Your task to perform on an android device: Go to eBay Image 0: 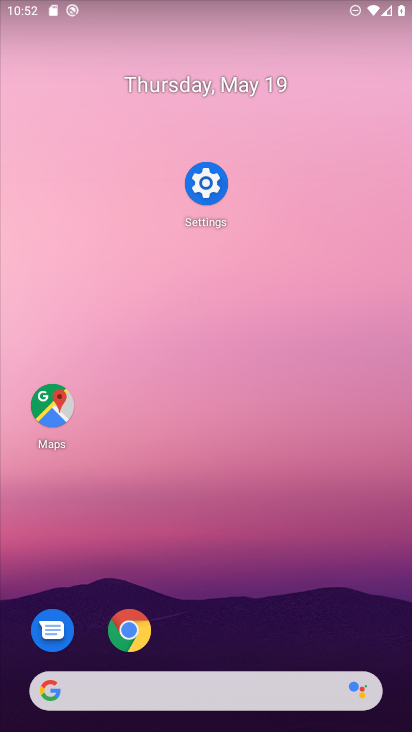
Step 0: drag from (265, 569) to (188, 13)
Your task to perform on an android device: Go to eBay Image 1: 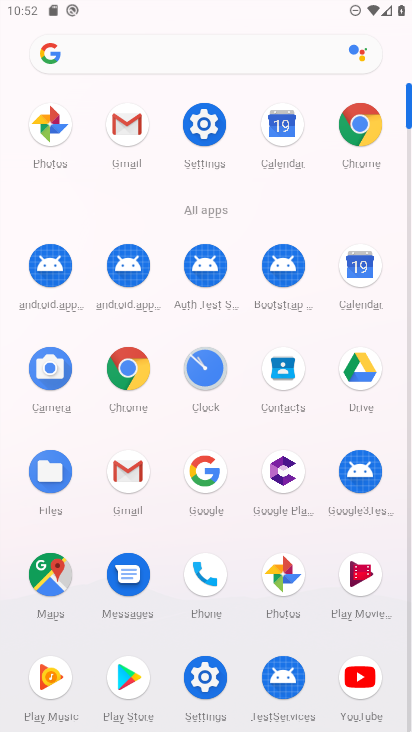
Step 1: click (350, 219)
Your task to perform on an android device: Go to eBay Image 2: 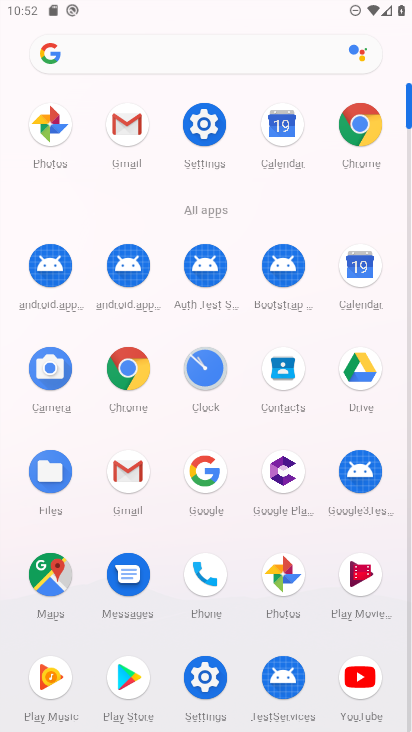
Step 2: click (362, 125)
Your task to perform on an android device: Go to eBay Image 3: 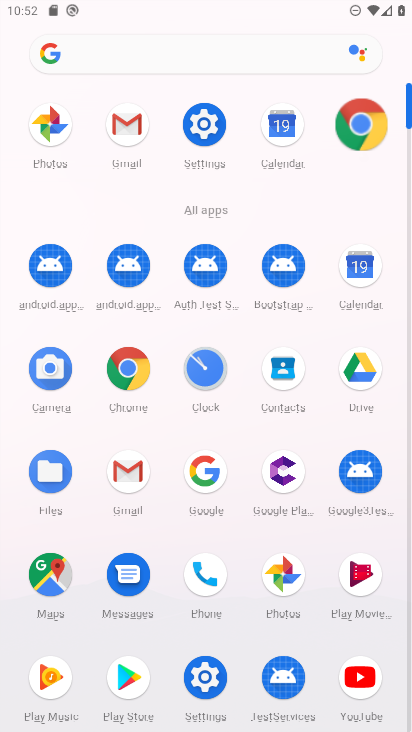
Step 3: click (362, 125)
Your task to perform on an android device: Go to eBay Image 4: 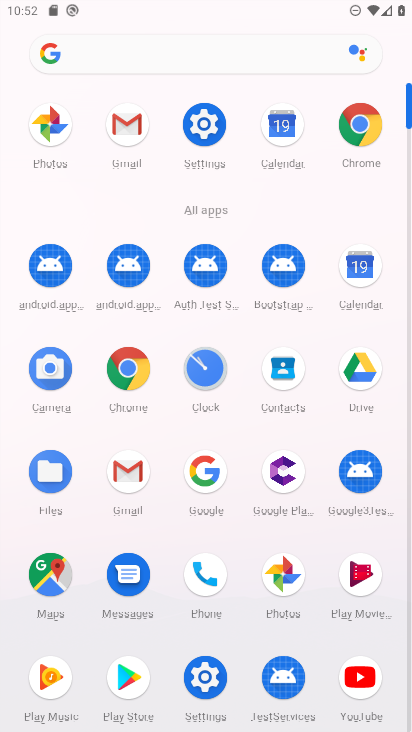
Step 4: click (362, 125)
Your task to perform on an android device: Go to eBay Image 5: 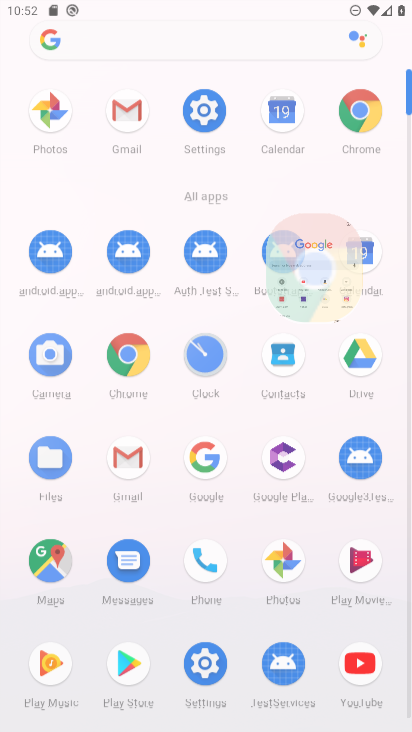
Step 5: click (362, 125)
Your task to perform on an android device: Go to eBay Image 6: 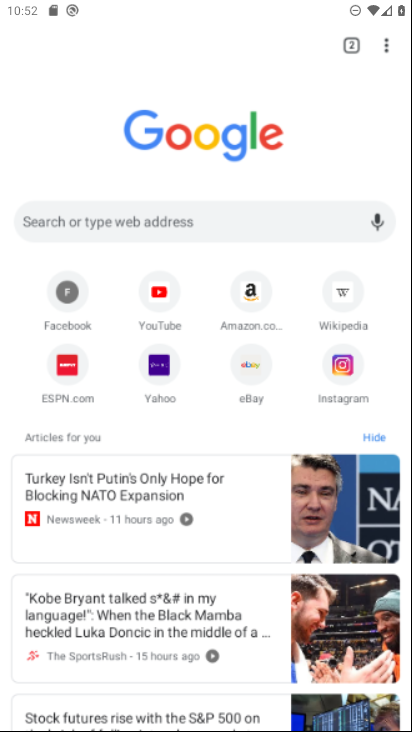
Step 6: click (362, 125)
Your task to perform on an android device: Go to eBay Image 7: 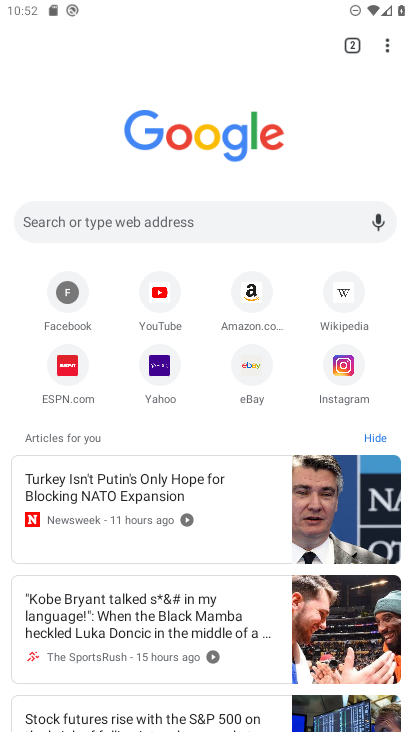
Step 7: click (251, 362)
Your task to perform on an android device: Go to eBay Image 8: 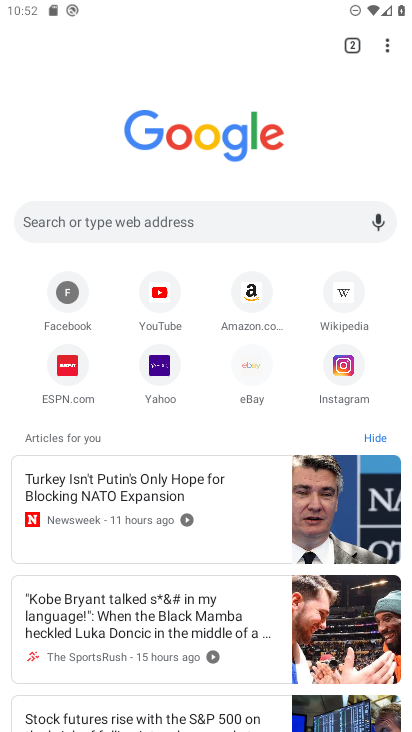
Step 8: click (251, 362)
Your task to perform on an android device: Go to eBay Image 9: 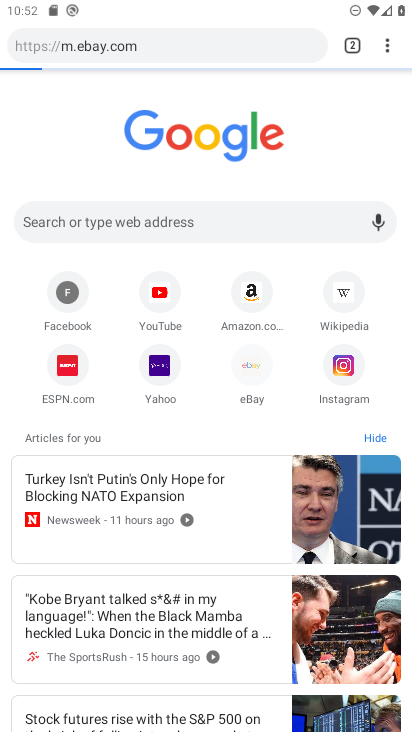
Step 9: click (251, 362)
Your task to perform on an android device: Go to eBay Image 10: 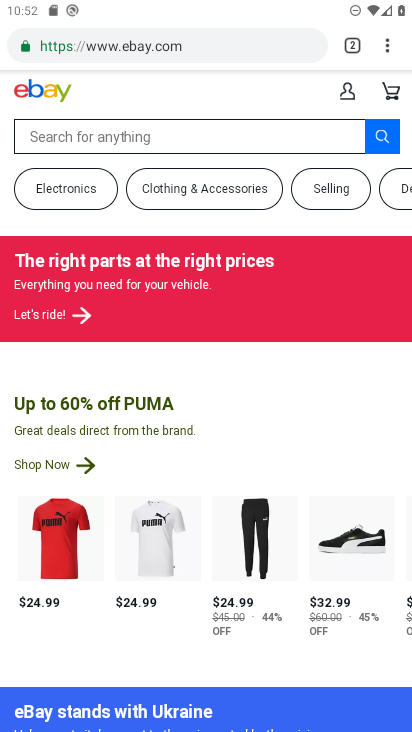
Step 10: task complete